Your task to perform on an android device: Search for flights from NYC to Buenos aires Image 0: 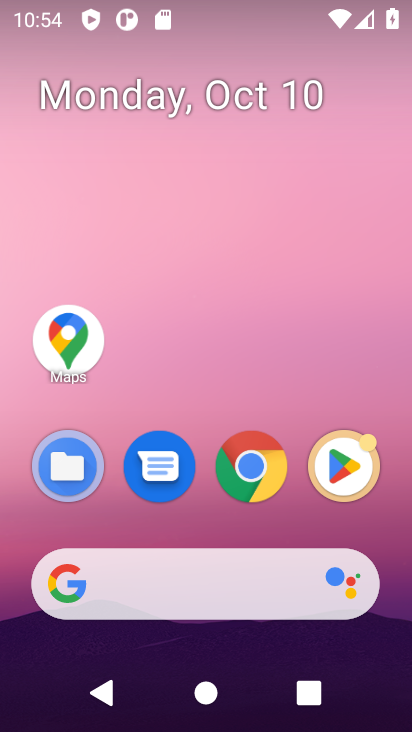
Step 0: press home button
Your task to perform on an android device: Search for flights from NYC to Buenos aires Image 1: 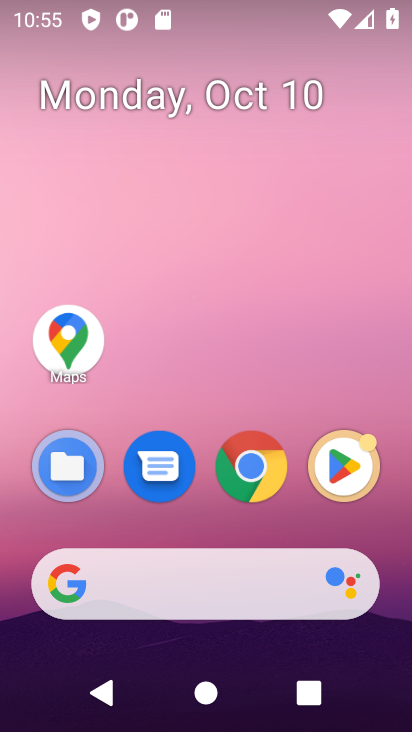
Step 1: click (56, 583)
Your task to perform on an android device: Search for flights from NYC to Buenos aires Image 2: 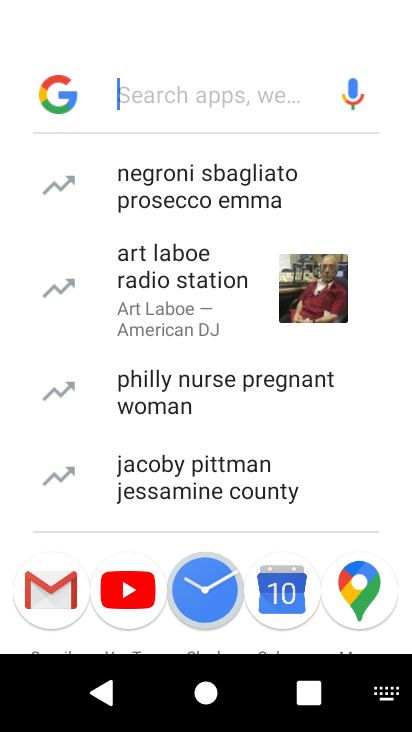
Step 2: type "flights from NYC to Buenos aires"
Your task to perform on an android device: Search for flights from NYC to Buenos aires Image 3: 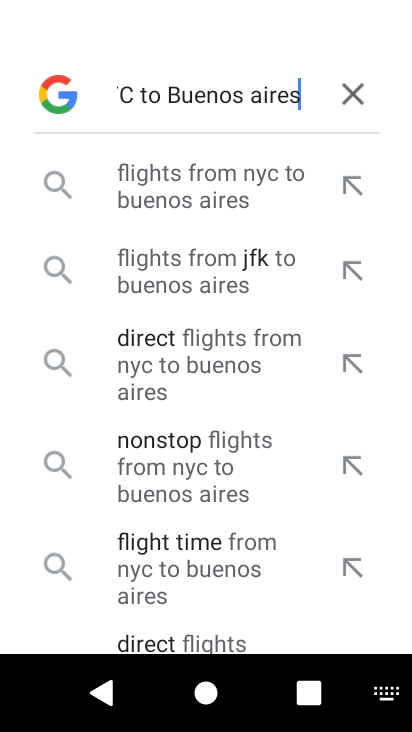
Step 3: press enter
Your task to perform on an android device: Search for flights from NYC to Buenos aires Image 4: 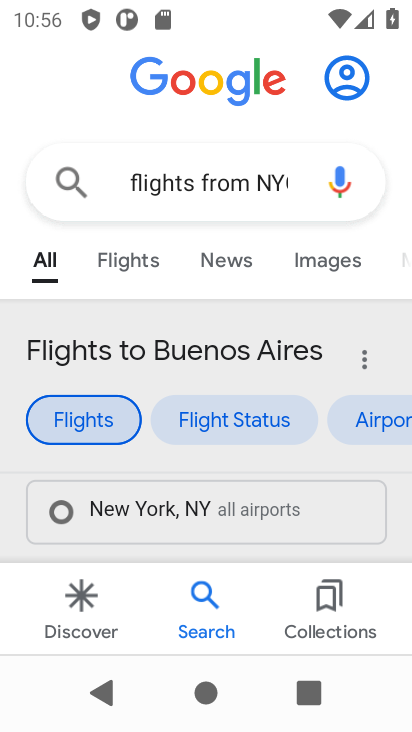
Step 4: task complete